Your task to perform on an android device: check battery use Image 0: 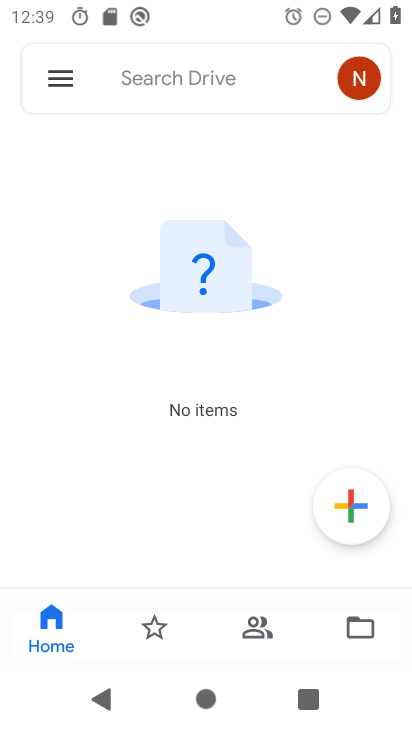
Step 0: press home button
Your task to perform on an android device: check battery use Image 1: 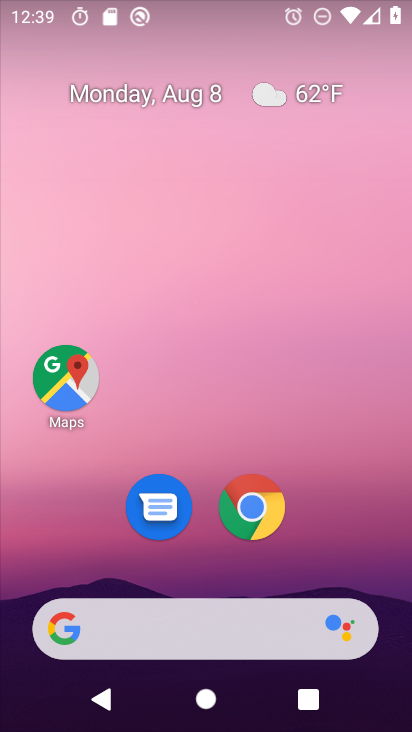
Step 1: drag from (343, 545) to (319, 0)
Your task to perform on an android device: check battery use Image 2: 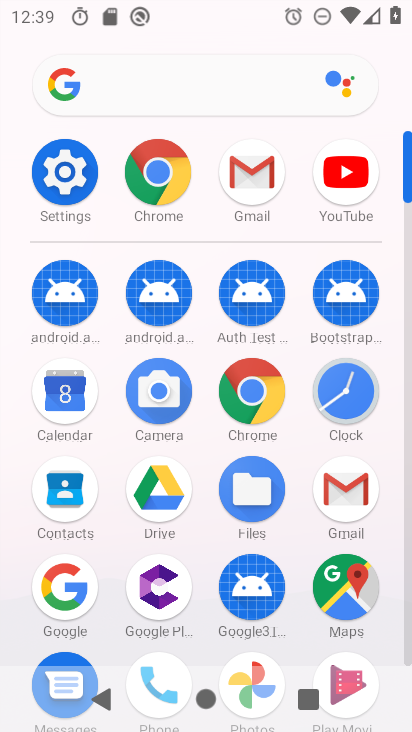
Step 2: drag from (218, 425) to (217, 147)
Your task to perform on an android device: check battery use Image 3: 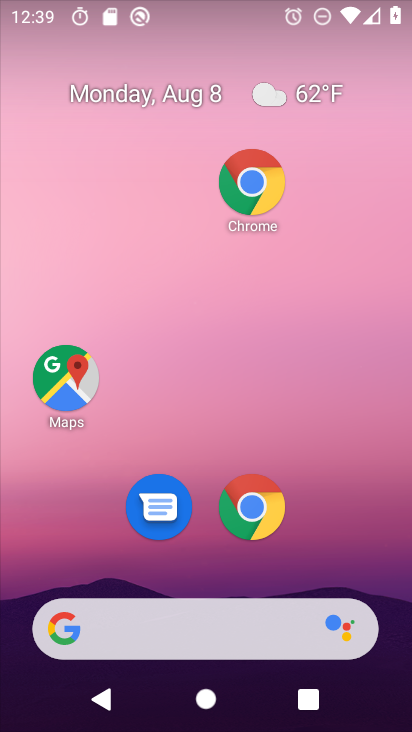
Step 3: drag from (364, 458) to (335, 21)
Your task to perform on an android device: check battery use Image 4: 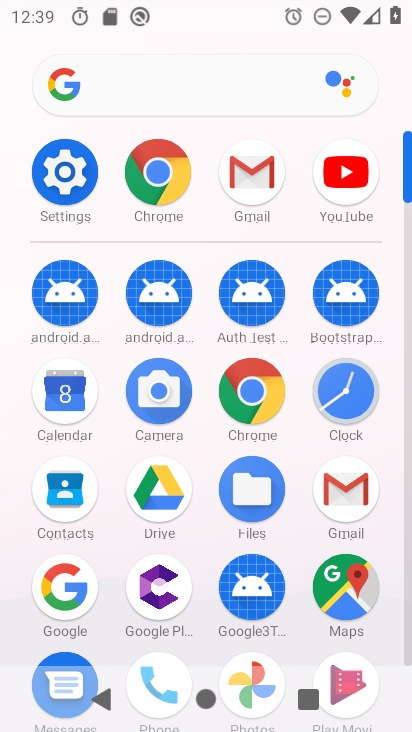
Step 4: click (65, 178)
Your task to perform on an android device: check battery use Image 5: 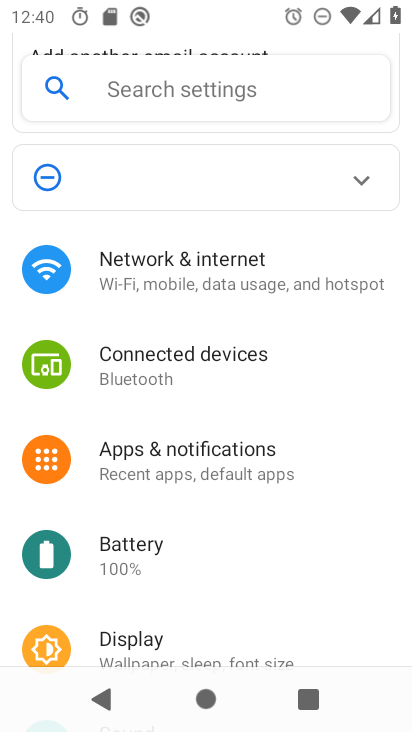
Step 5: click (114, 549)
Your task to perform on an android device: check battery use Image 6: 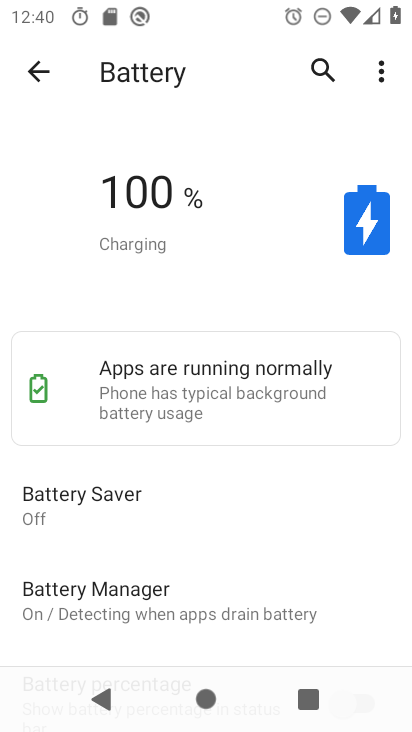
Step 6: click (383, 67)
Your task to perform on an android device: check battery use Image 7: 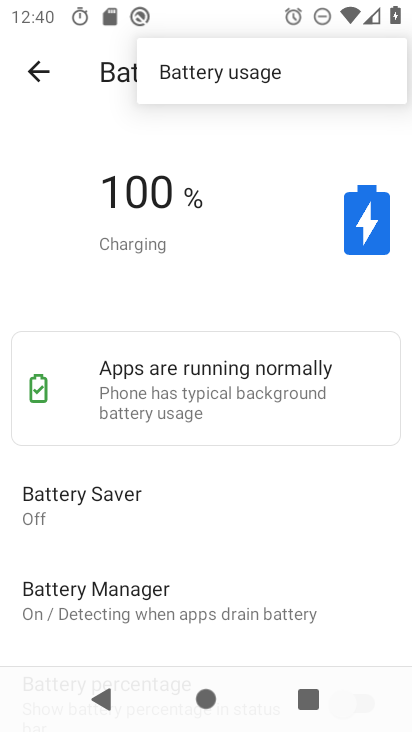
Step 7: click (280, 77)
Your task to perform on an android device: check battery use Image 8: 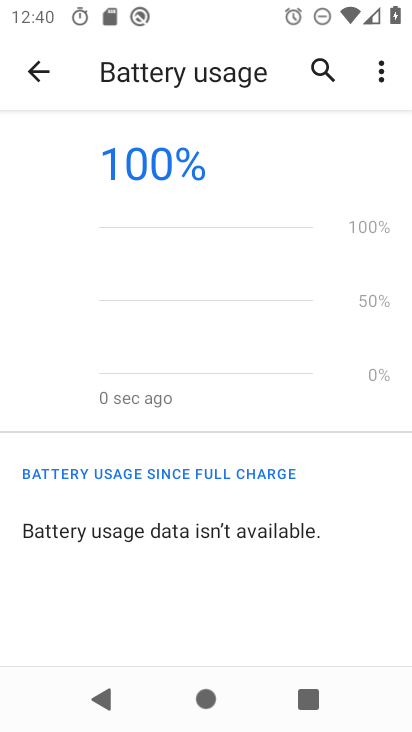
Step 8: task complete